Your task to perform on an android device: Search for vegetarian restaurants on Maps Image 0: 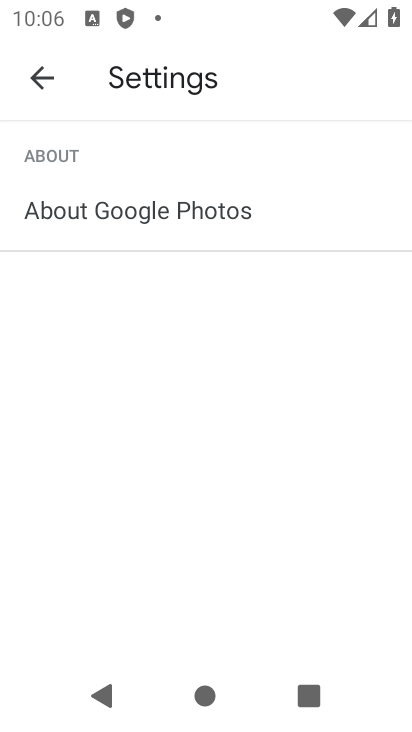
Step 0: press home button
Your task to perform on an android device: Search for vegetarian restaurants on Maps Image 1: 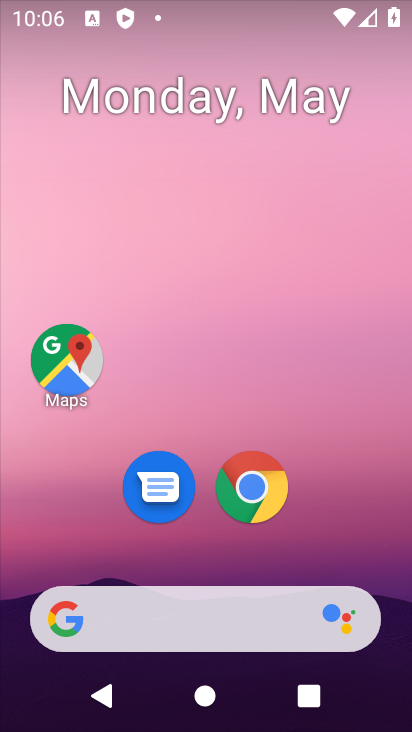
Step 1: click (73, 366)
Your task to perform on an android device: Search for vegetarian restaurants on Maps Image 2: 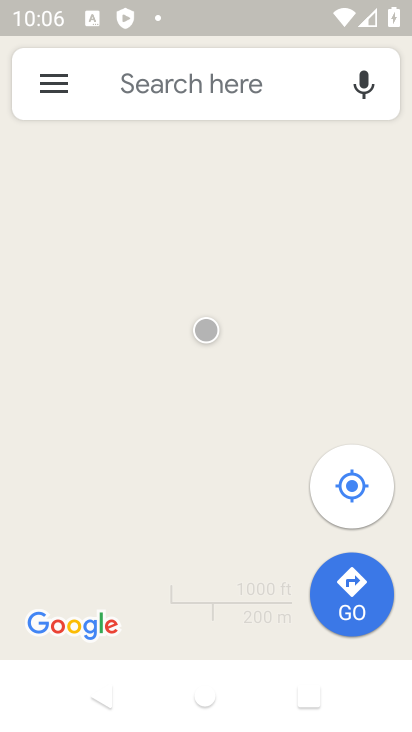
Step 2: click (169, 85)
Your task to perform on an android device: Search for vegetarian restaurants on Maps Image 3: 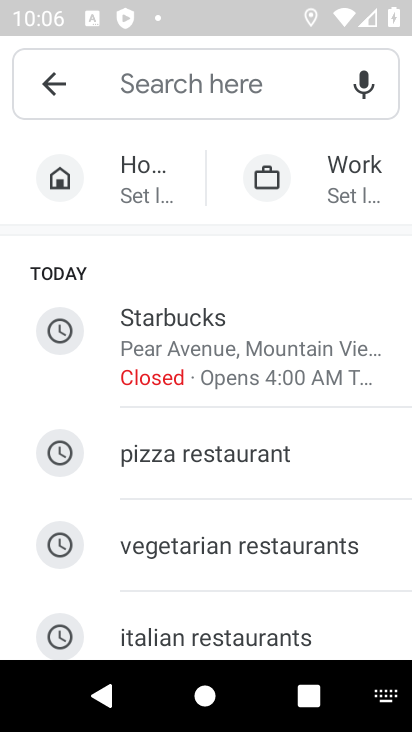
Step 3: type "vegetarian restayrant"
Your task to perform on an android device: Search for vegetarian restaurants on Maps Image 4: 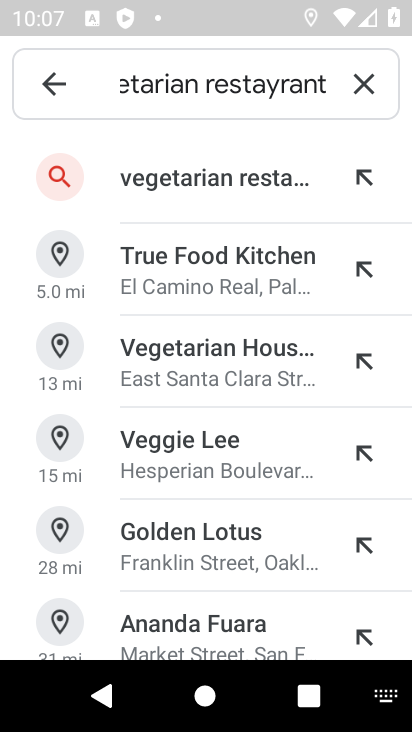
Step 4: click (142, 193)
Your task to perform on an android device: Search for vegetarian restaurants on Maps Image 5: 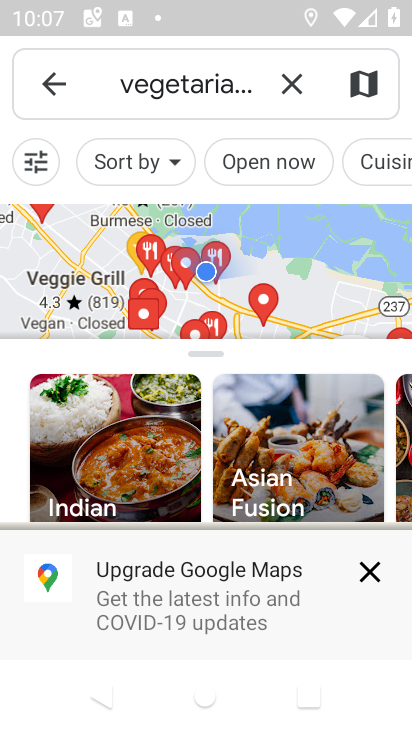
Step 5: task complete